Your task to perform on an android device: Go to accessibility settings Image 0: 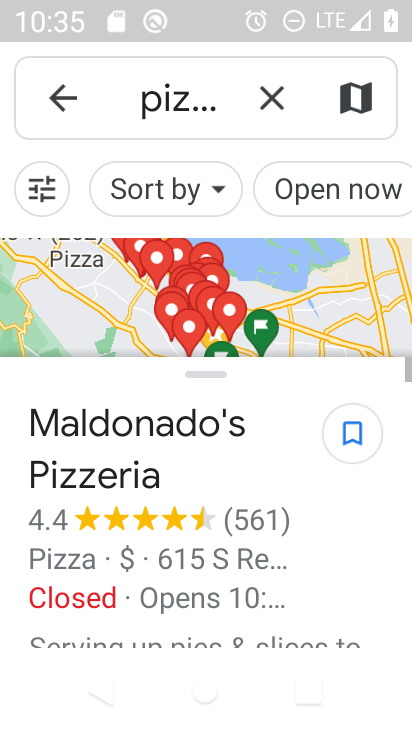
Step 0: press home button
Your task to perform on an android device: Go to accessibility settings Image 1: 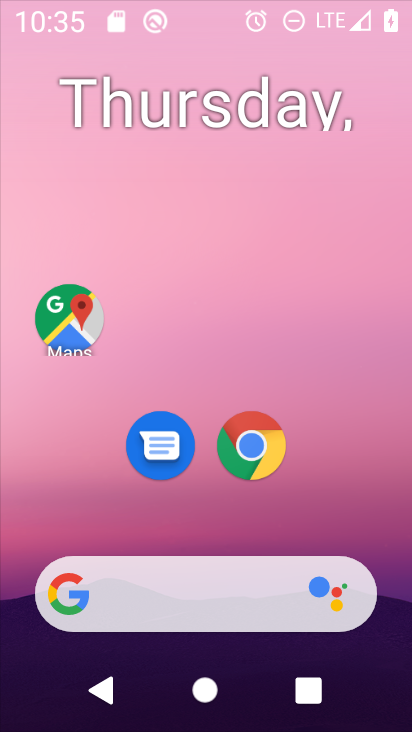
Step 1: drag from (386, 657) to (276, 22)
Your task to perform on an android device: Go to accessibility settings Image 2: 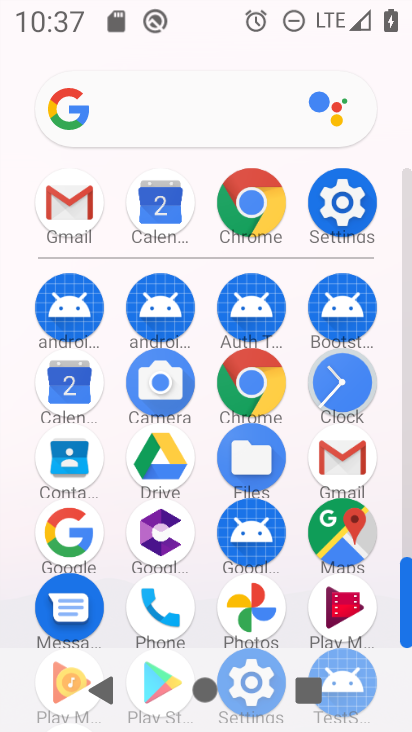
Step 2: click (336, 213)
Your task to perform on an android device: Go to accessibility settings Image 3: 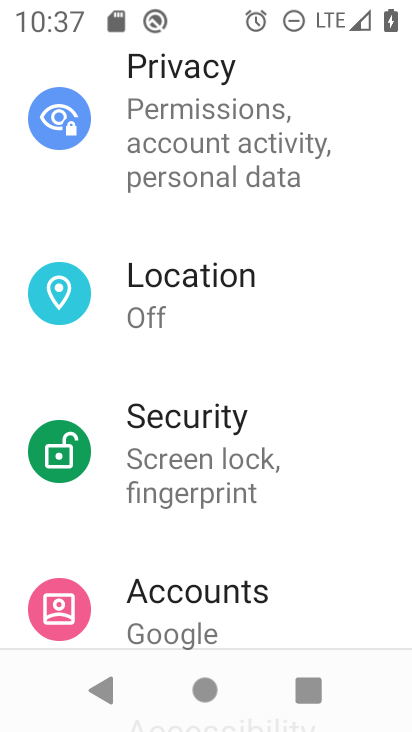
Step 3: drag from (307, 616) to (249, 178)
Your task to perform on an android device: Go to accessibility settings Image 4: 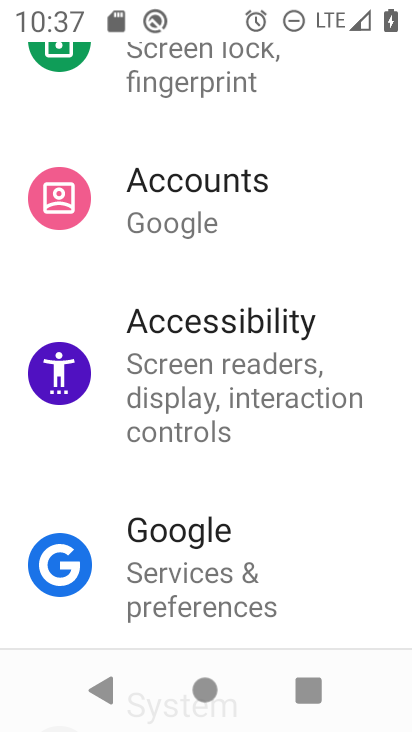
Step 4: click (226, 388)
Your task to perform on an android device: Go to accessibility settings Image 5: 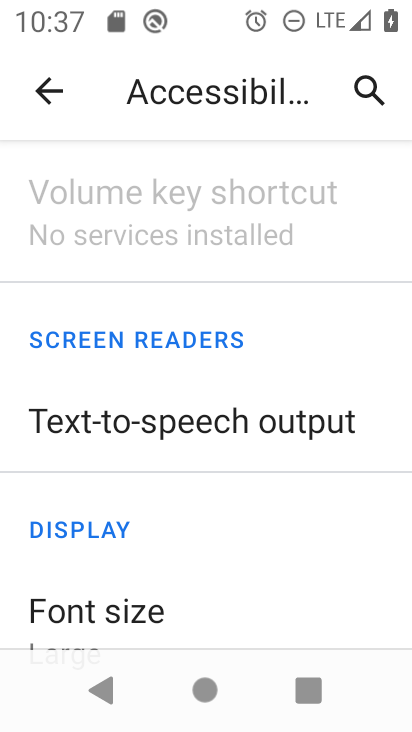
Step 5: task complete